Your task to perform on an android device: Toggle the flashlight Image 0: 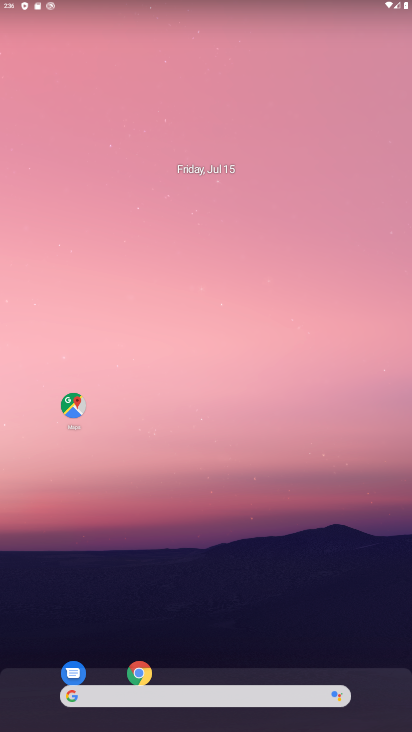
Step 0: drag from (216, 13) to (247, 469)
Your task to perform on an android device: Toggle the flashlight Image 1: 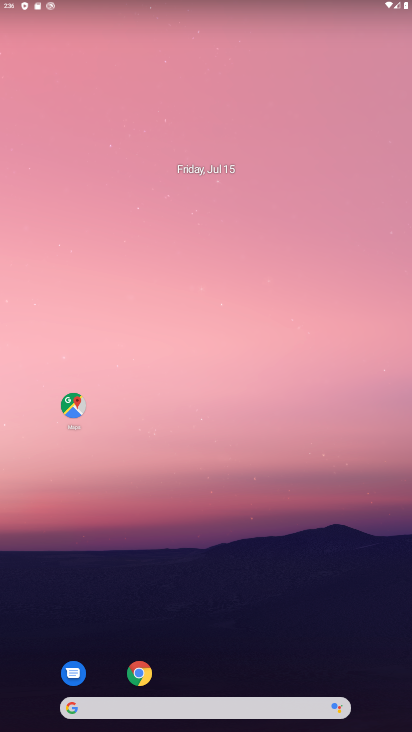
Step 1: drag from (223, 23) to (235, 489)
Your task to perform on an android device: Toggle the flashlight Image 2: 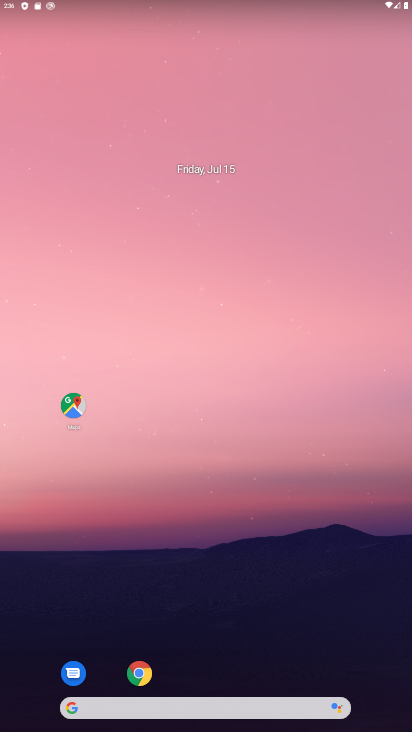
Step 2: drag from (227, 11) to (228, 631)
Your task to perform on an android device: Toggle the flashlight Image 3: 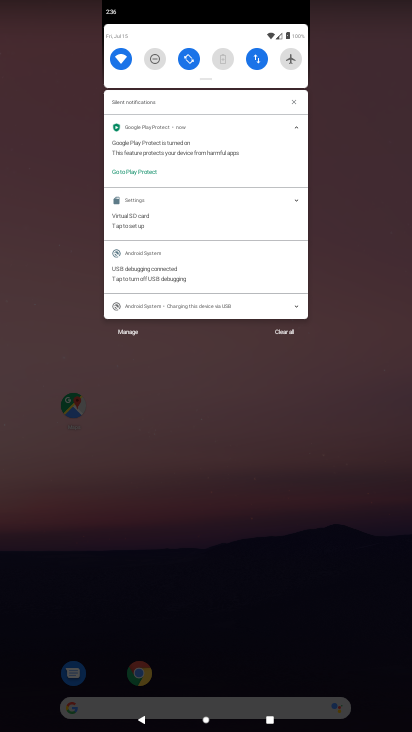
Step 3: drag from (199, 78) to (200, 389)
Your task to perform on an android device: Toggle the flashlight Image 4: 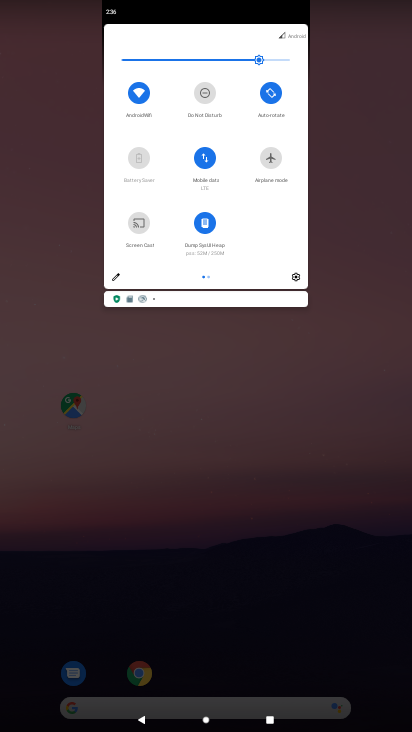
Step 4: click (113, 273)
Your task to perform on an android device: Toggle the flashlight Image 5: 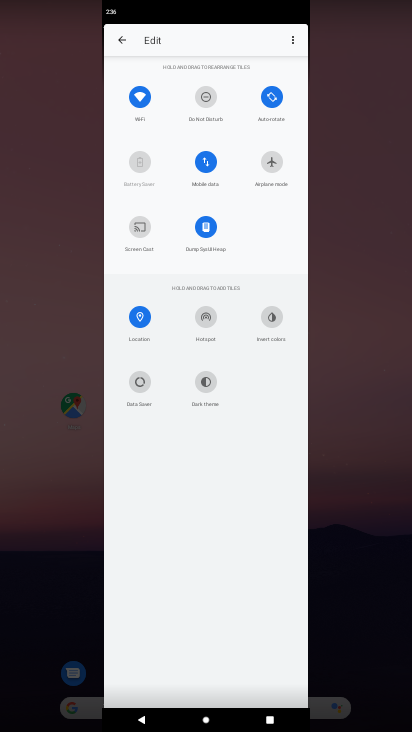
Step 5: task complete